Your task to perform on an android device: Do I have any events this weekend? Image 0: 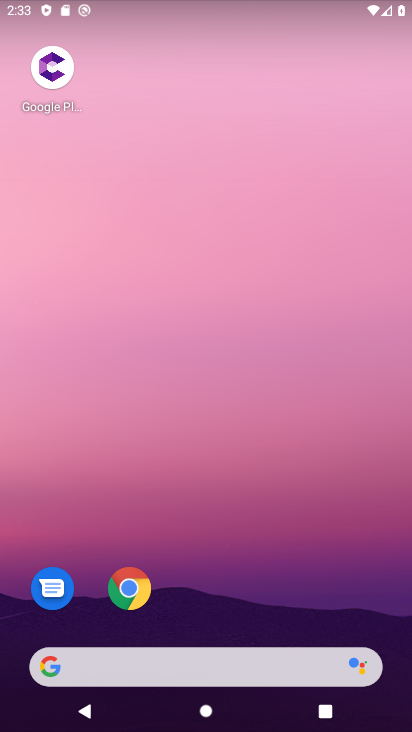
Step 0: drag from (278, 619) to (304, 152)
Your task to perform on an android device: Do I have any events this weekend? Image 1: 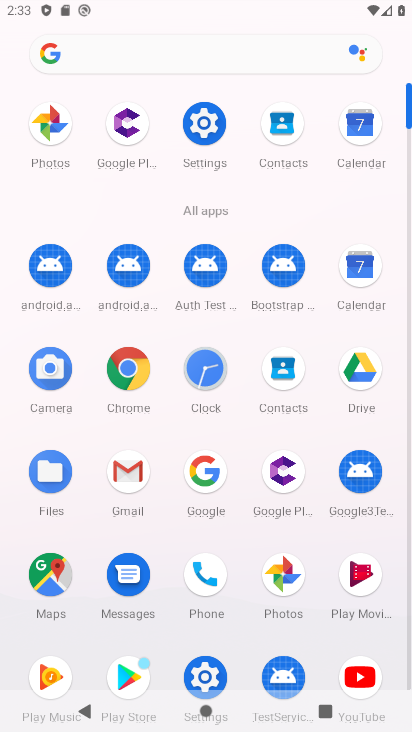
Step 1: click (351, 285)
Your task to perform on an android device: Do I have any events this weekend? Image 2: 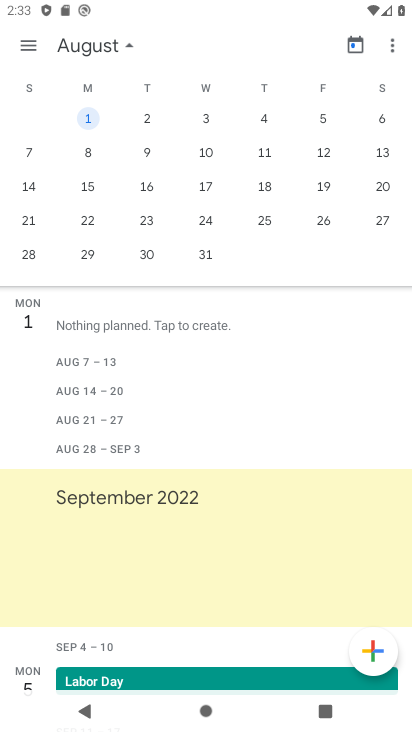
Step 2: click (376, 124)
Your task to perform on an android device: Do I have any events this weekend? Image 3: 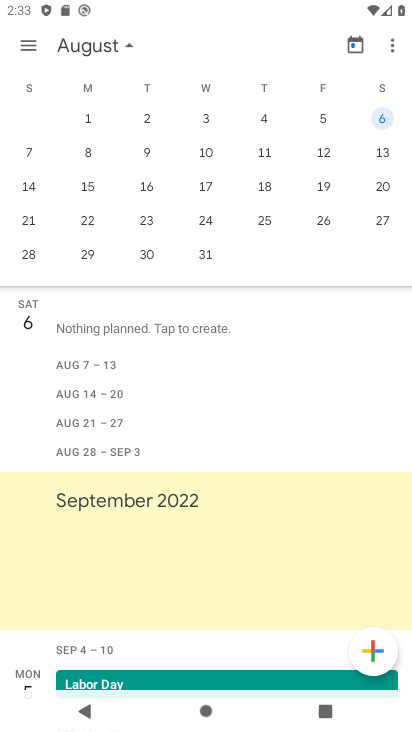
Step 3: task complete